Your task to perform on an android device: Go to CNN.com Image 0: 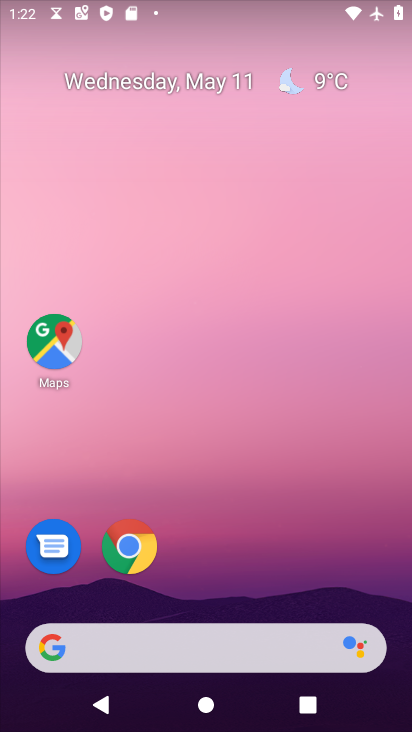
Step 0: drag from (294, 626) to (358, 9)
Your task to perform on an android device: Go to CNN.com Image 1: 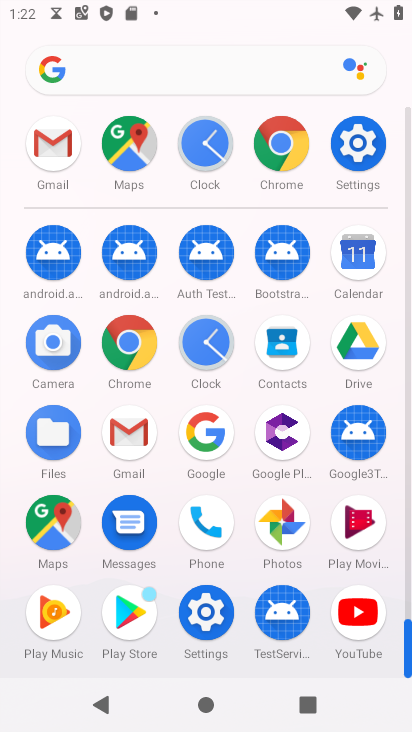
Step 1: click (130, 354)
Your task to perform on an android device: Go to CNN.com Image 2: 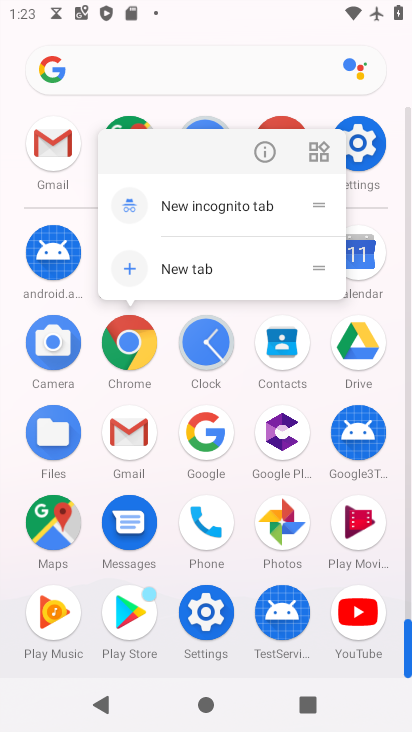
Step 2: click (164, 348)
Your task to perform on an android device: Go to CNN.com Image 3: 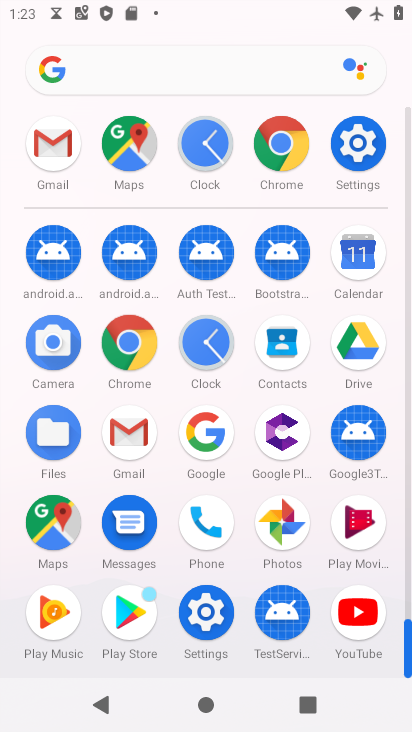
Step 3: click (143, 343)
Your task to perform on an android device: Go to CNN.com Image 4: 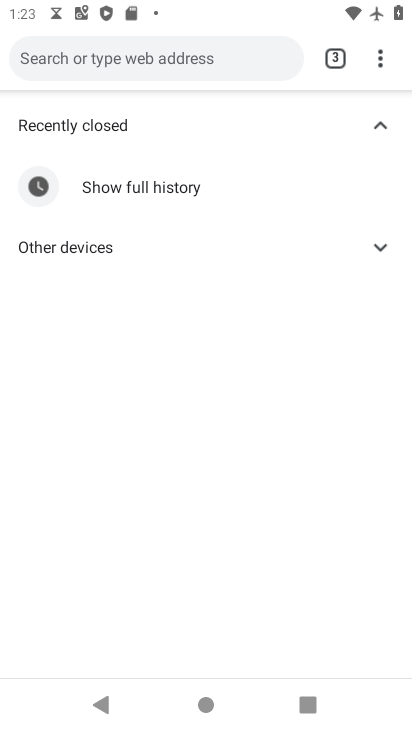
Step 4: click (194, 69)
Your task to perform on an android device: Go to CNN.com Image 5: 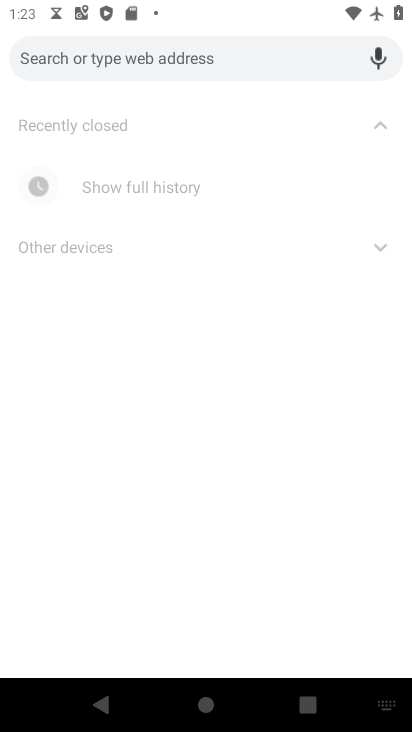
Step 5: type "cnn.com"
Your task to perform on an android device: Go to CNN.com Image 6: 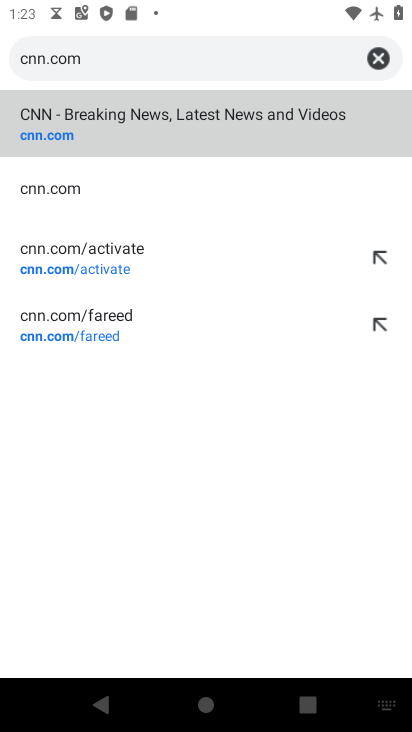
Step 6: click (178, 117)
Your task to perform on an android device: Go to CNN.com Image 7: 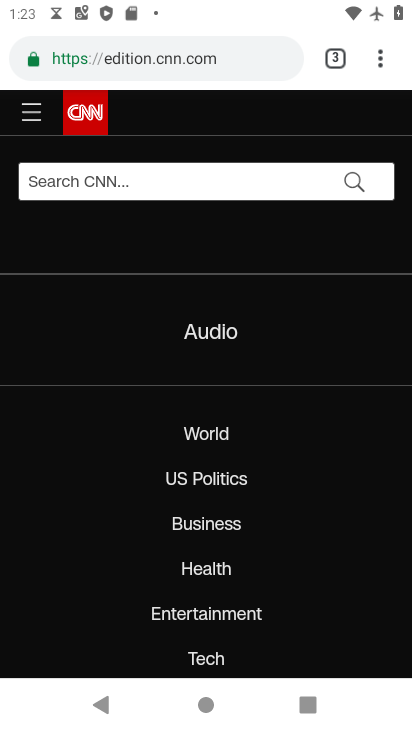
Step 7: task complete